Your task to perform on an android device: Go to Google Image 0: 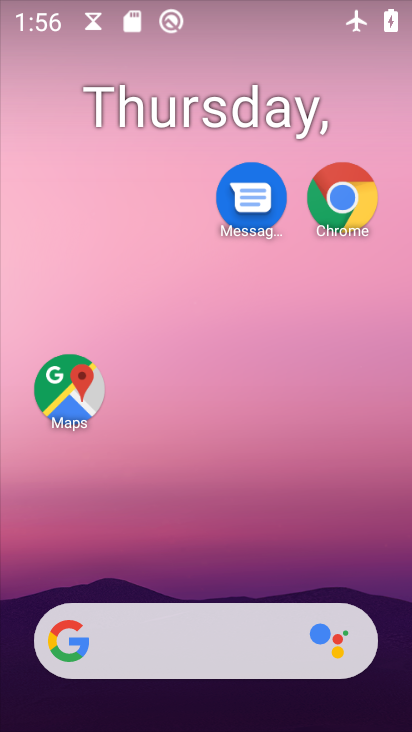
Step 0: click (141, 651)
Your task to perform on an android device: Go to Google Image 1: 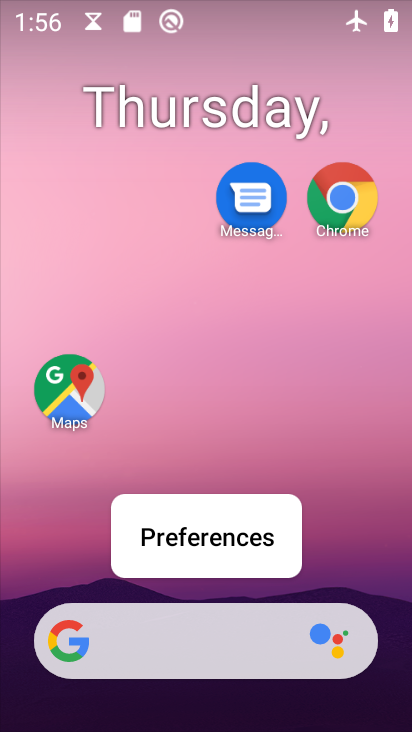
Step 1: task complete